Your task to perform on an android device: check google app version Image 0: 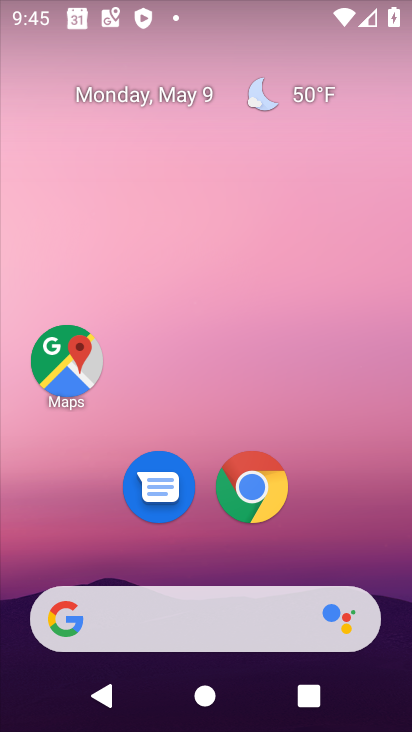
Step 0: press home button
Your task to perform on an android device: check google app version Image 1: 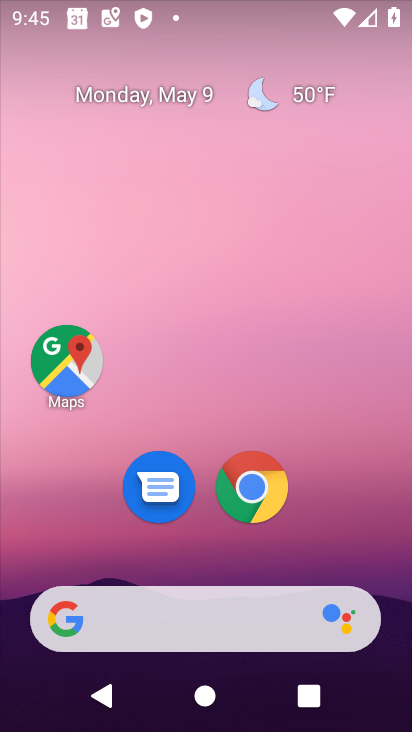
Step 1: drag from (26, 628) to (237, 118)
Your task to perform on an android device: check google app version Image 2: 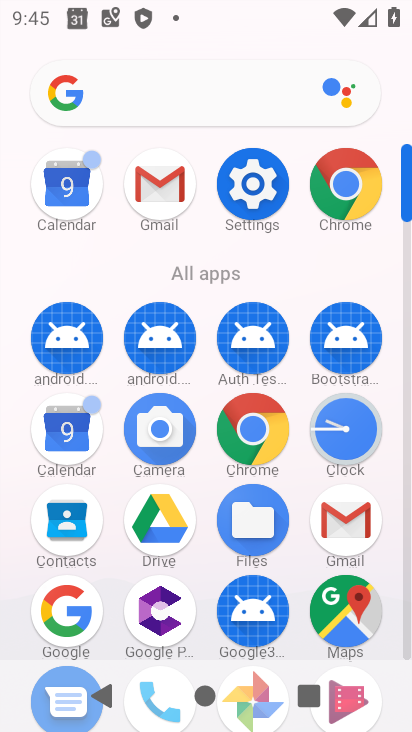
Step 2: click (180, 344)
Your task to perform on an android device: check google app version Image 3: 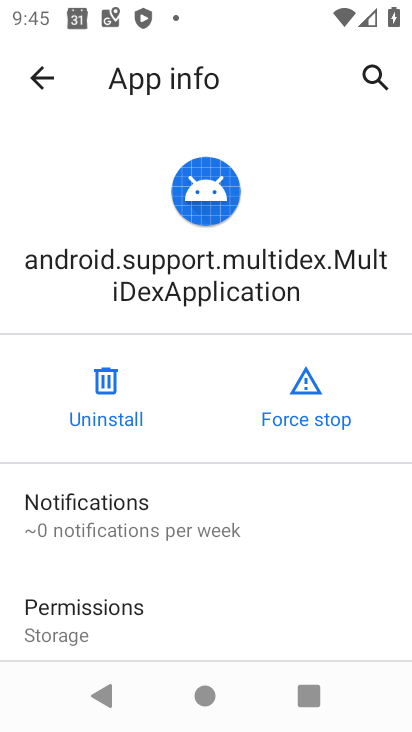
Step 3: drag from (80, 590) to (243, 207)
Your task to perform on an android device: check google app version Image 4: 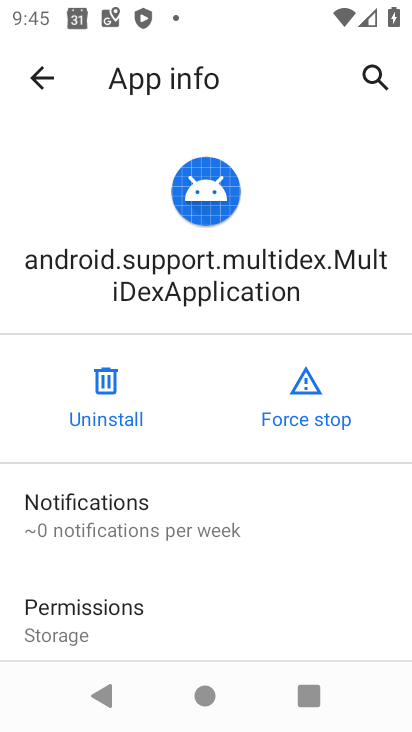
Step 4: drag from (45, 506) to (227, 205)
Your task to perform on an android device: check google app version Image 5: 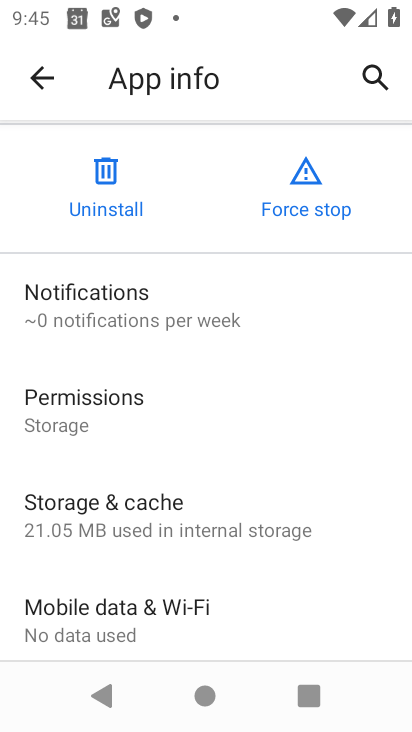
Step 5: drag from (11, 675) to (200, 308)
Your task to perform on an android device: check google app version Image 6: 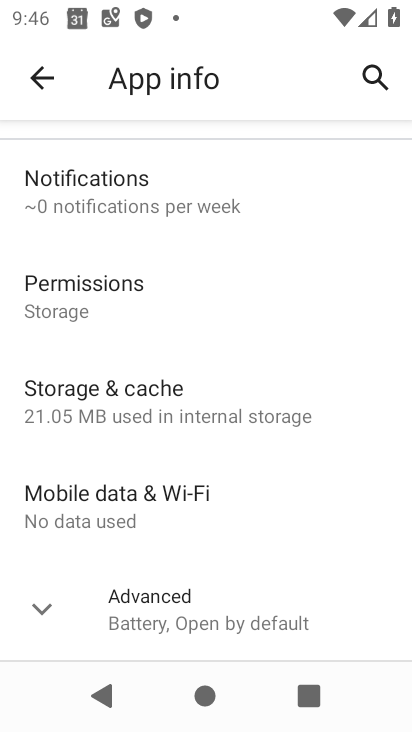
Step 6: click (110, 624)
Your task to perform on an android device: check google app version Image 7: 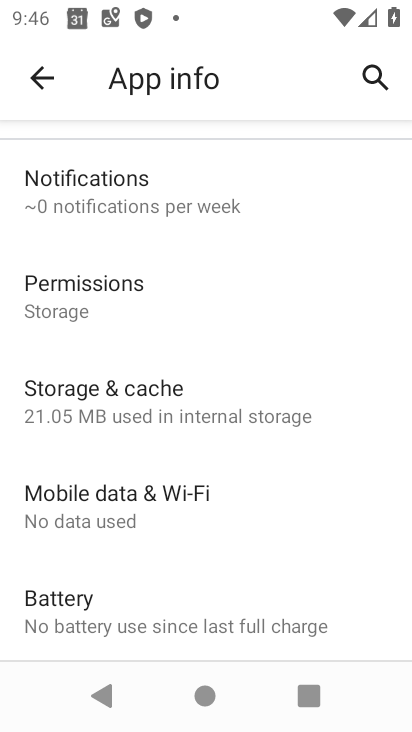
Step 7: drag from (22, 599) to (231, 272)
Your task to perform on an android device: check google app version Image 8: 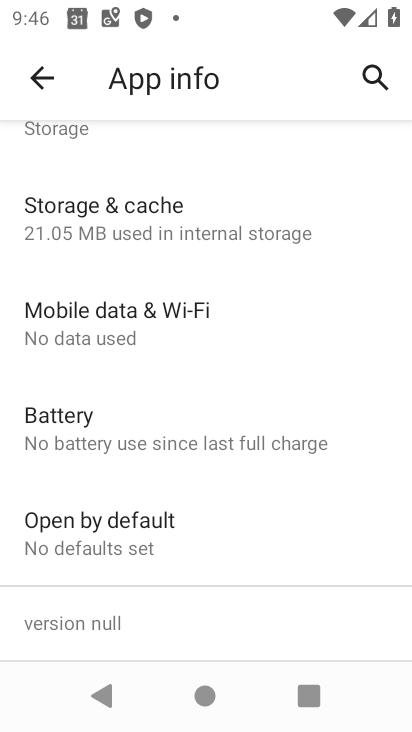
Step 8: click (90, 625)
Your task to perform on an android device: check google app version Image 9: 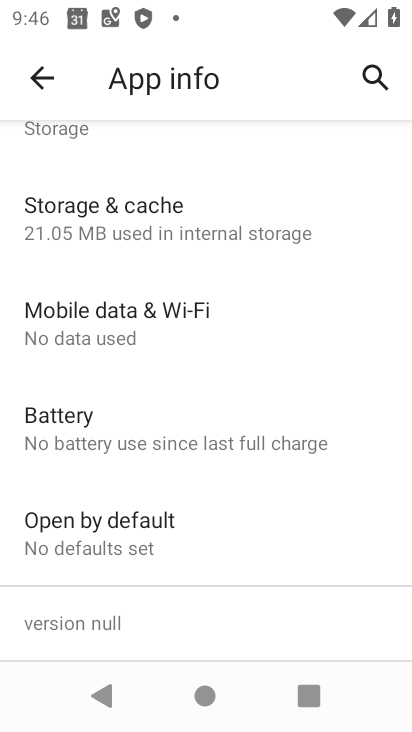
Step 9: click (91, 619)
Your task to perform on an android device: check google app version Image 10: 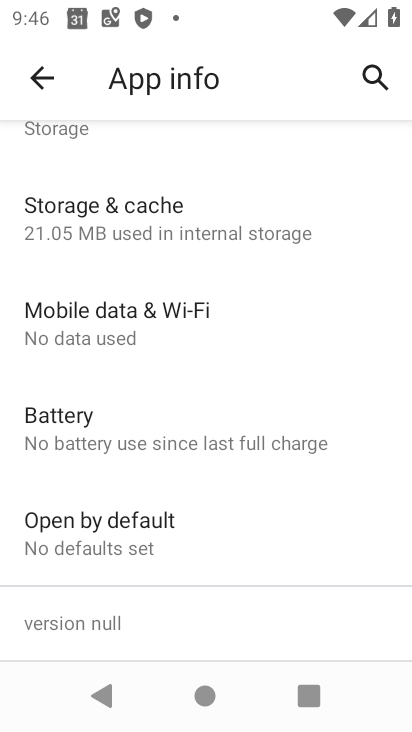
Step 10: click (92, 615)
Your task to perform on an android device: check google app version Image 11: 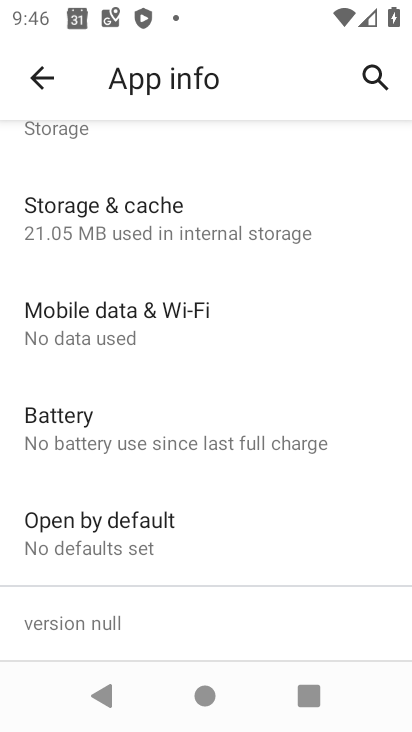
Step 11: task complete